Your task to perform on an android device: visit the assistant section in the google photos Image 0: 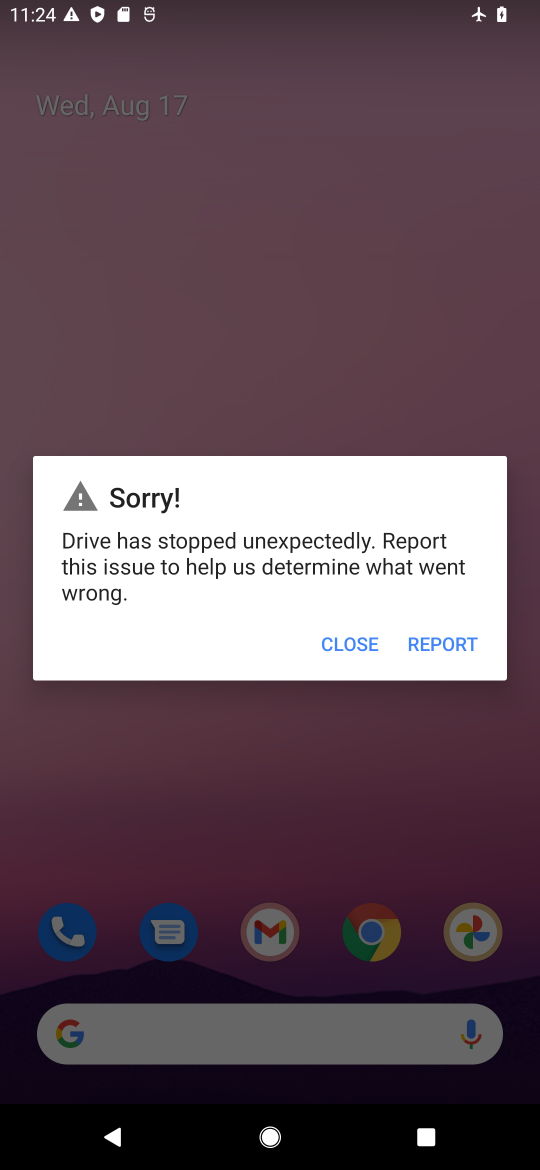
Step 0: click (353, 636)
Your task to perform on an android device: visit the assistant section in the google photos Image 1: 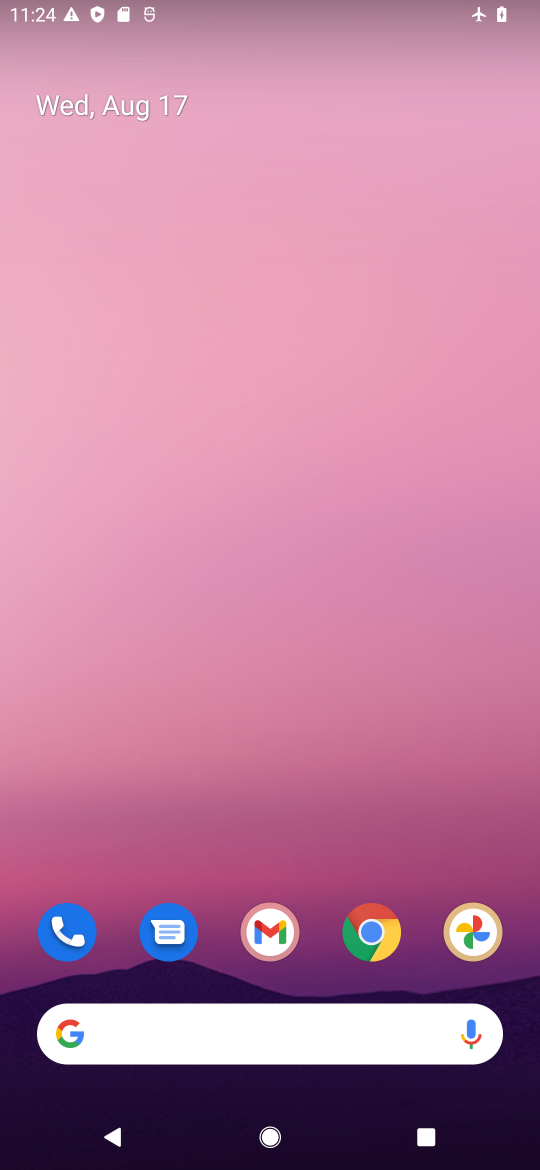
Step 1: drag from (277, 836) to (335, 244)
Your task to perform on an android device: visit the assistant section in the google photos Image 2: 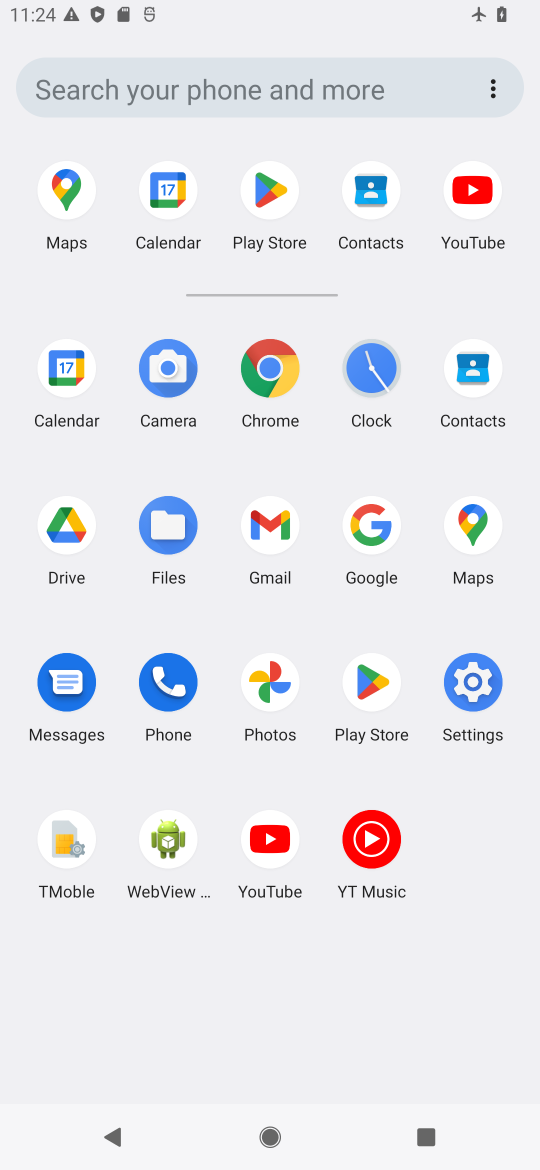
Step 2: click (247, 699)
Your task to perform on an android device: visit the assistant section in the google photos Image 3: 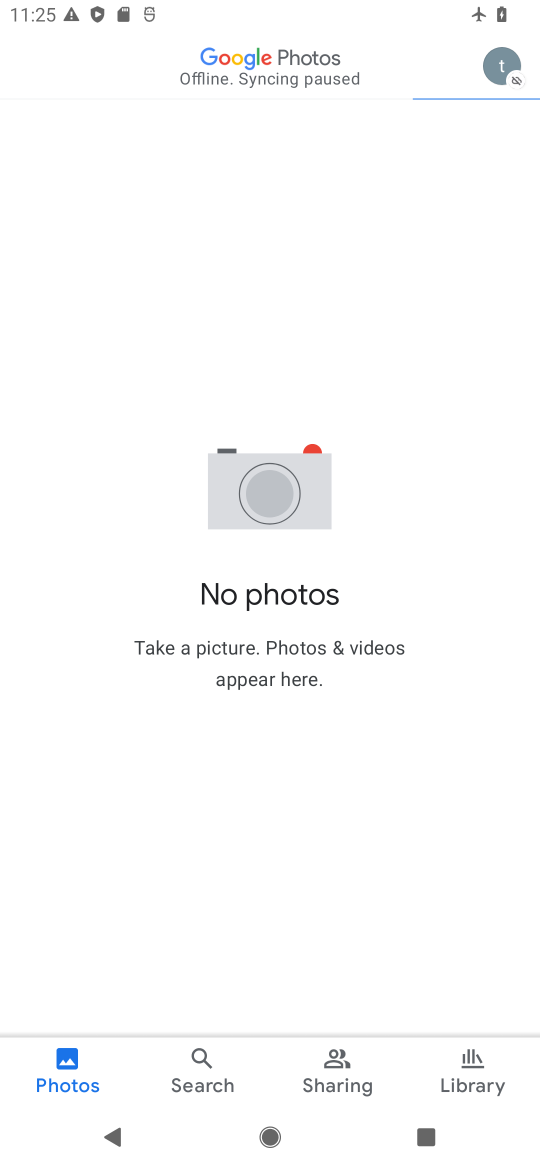
Step 3: click (453, 1049)
Your task to perform on an android device: visit the assistant section in the google photos Image 4: 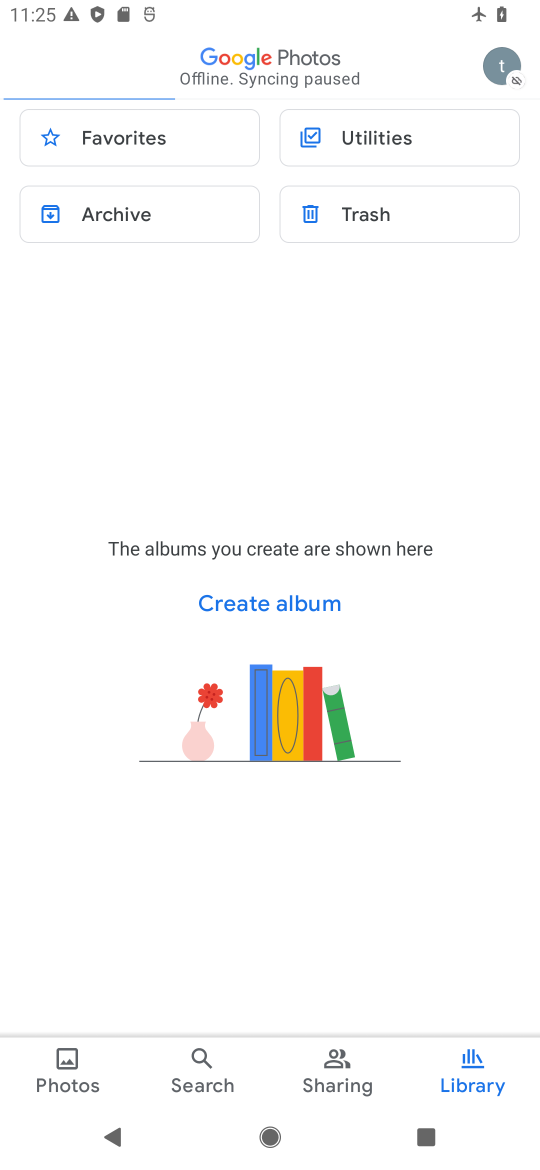
Step 4: task complete